Your task to perform on an android device: What's the news in Venezuela? Image 0: 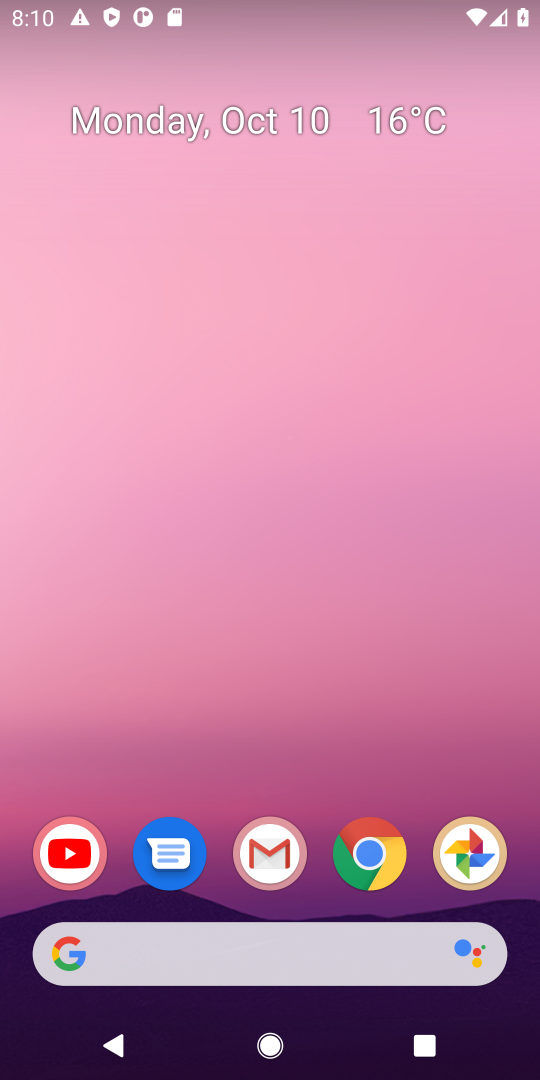
Step 0: drag from (316, 914) to (207, 156)
Your task to perform on an android device: What's the news in Venezuela? Image 1: 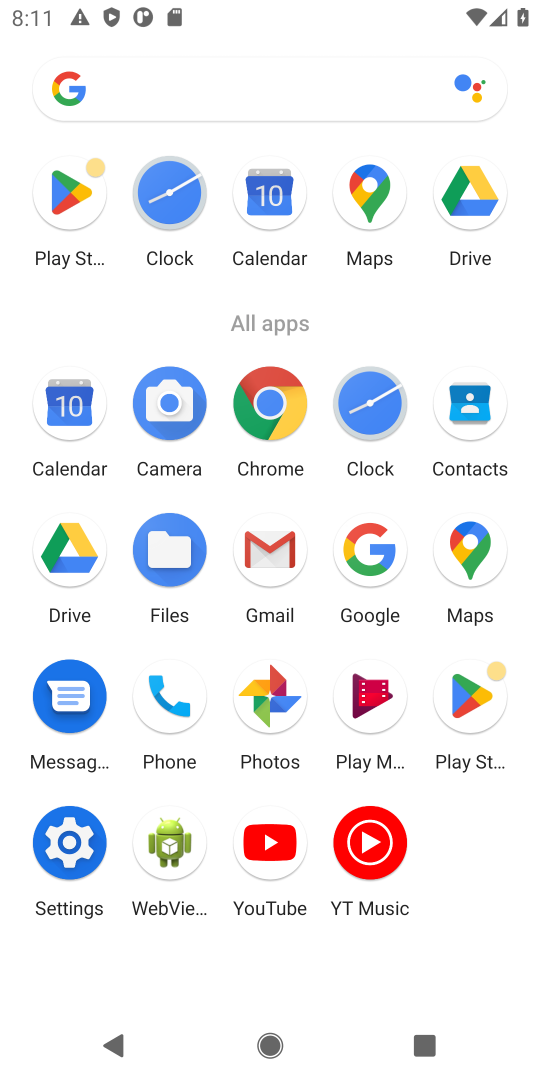
Step 1: click (268, 406)
Your task to perform on an android device: What's the news in Venezuela? Image 2: 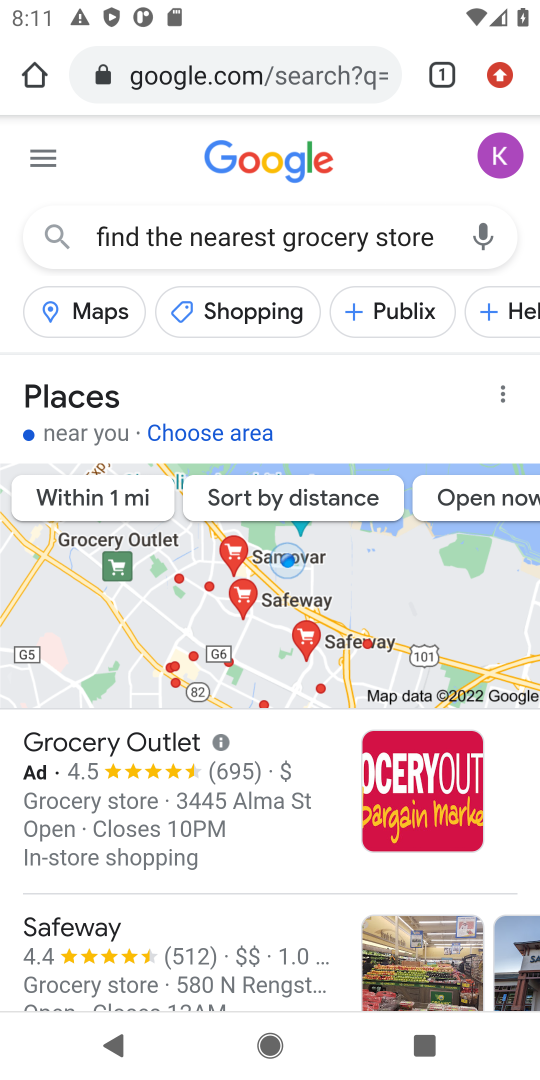
Step 2: click (350, 237)
Your task to perform on an android device: What's the news in Venezuela? Image 3: 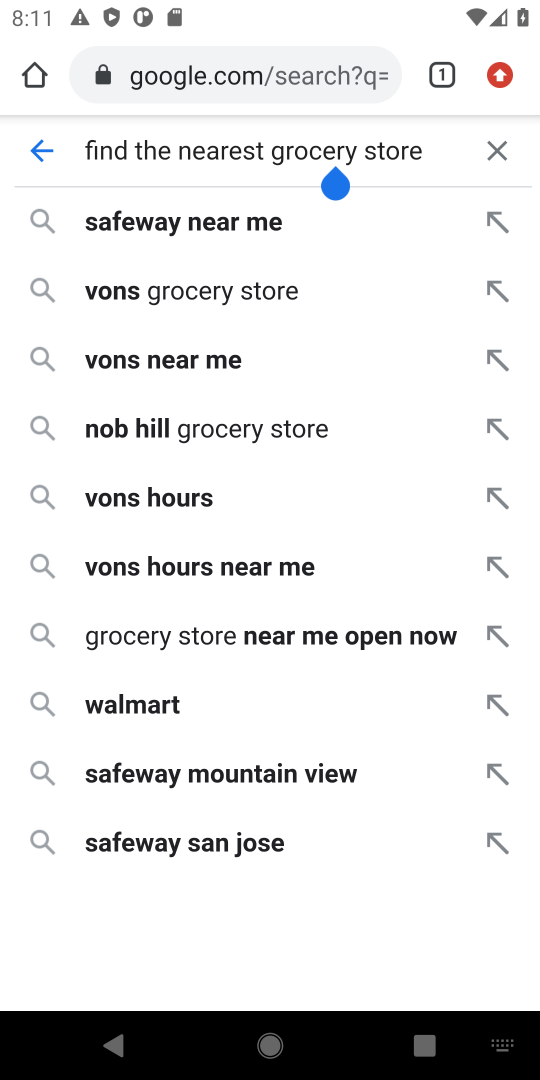
Step 3: click (501, 147)
Your task to perform on an android device: What's the news in Venezuela? Image 4: 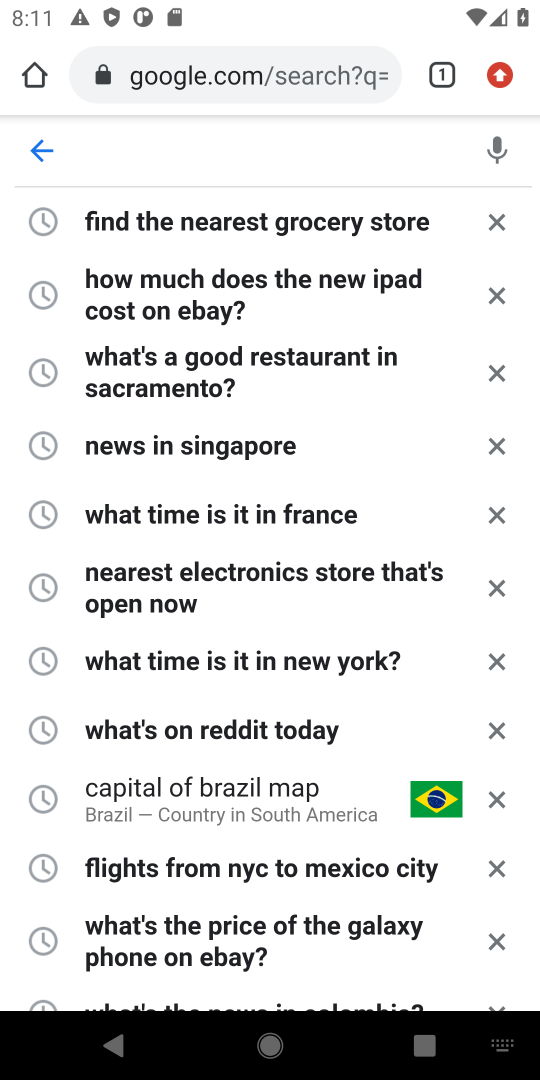
Step 4: type "What's the news in Venezuela?"
Your task to perform on an android device: What's the news in Venezuela? Image 5: 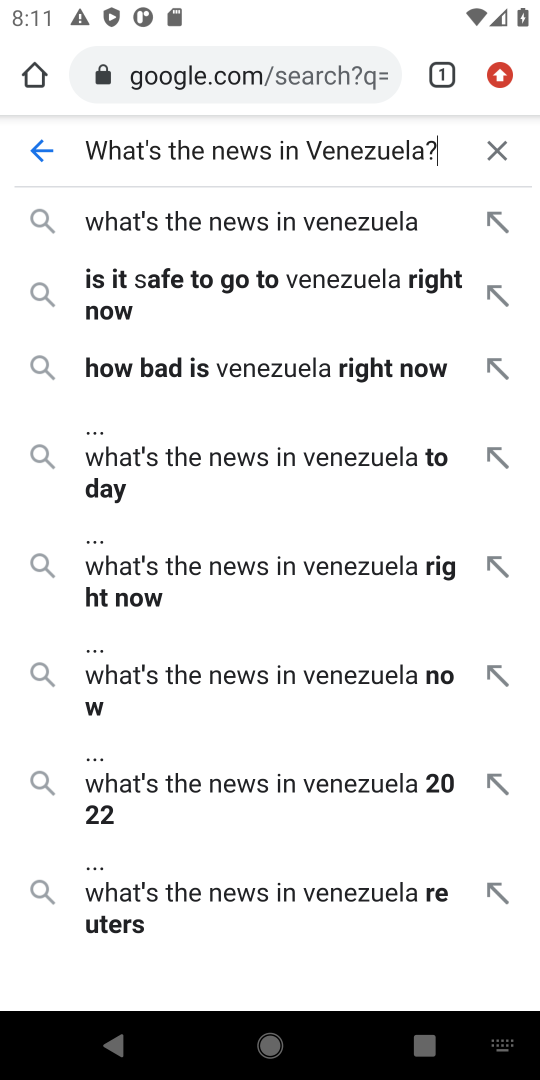
Step 5: type ""
Your task to perform on an android device: What's the news in Venezuela? Image 6: 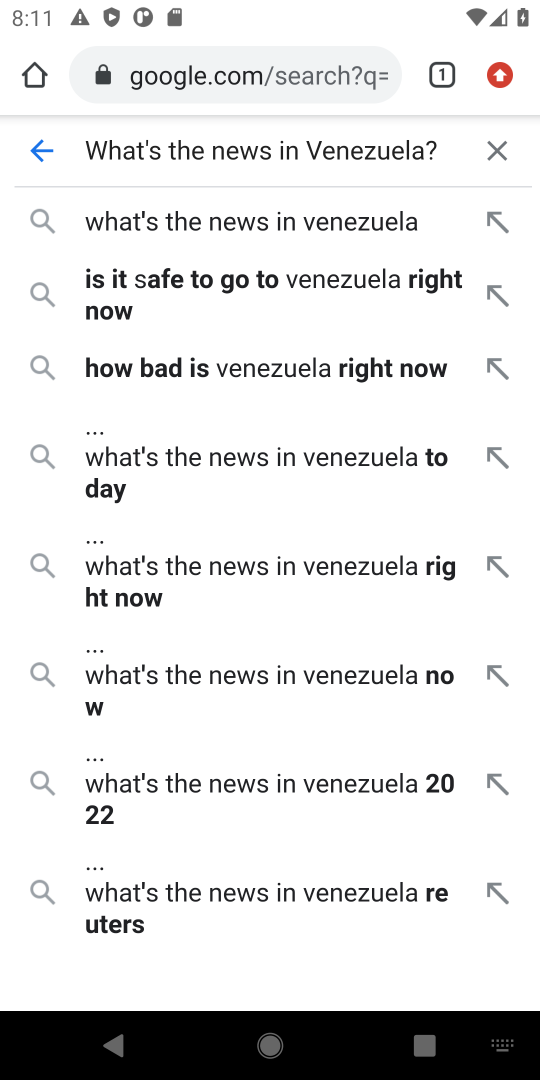
Step 6: click (329, 214)
Your task to perform on an android device: What's the news in Venezuela? Image 7: 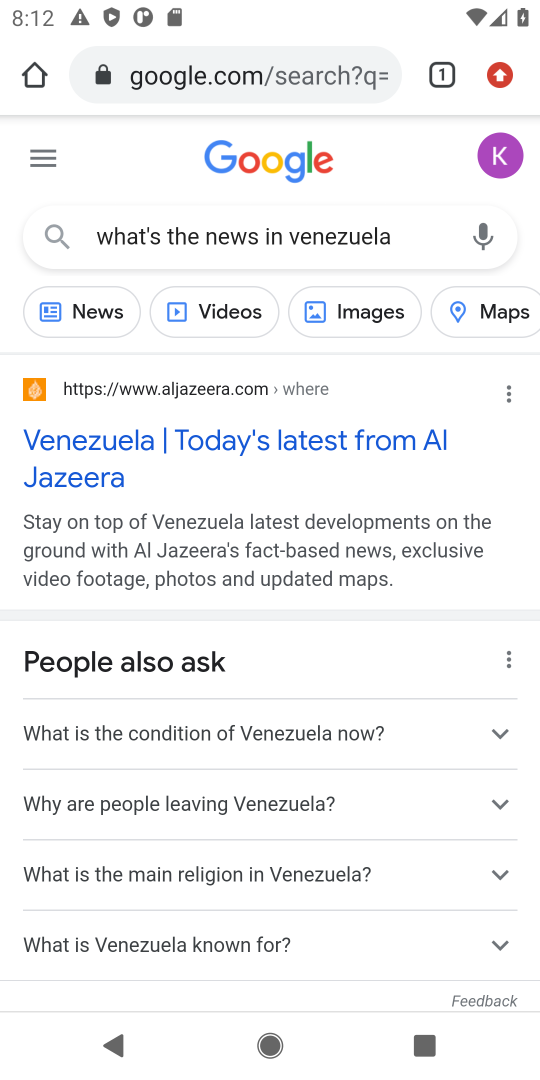
Step 7: drag from (195, 820) to (190, 673)
Your task to perform on an android device: What's the news in Venezuela? Image 8: 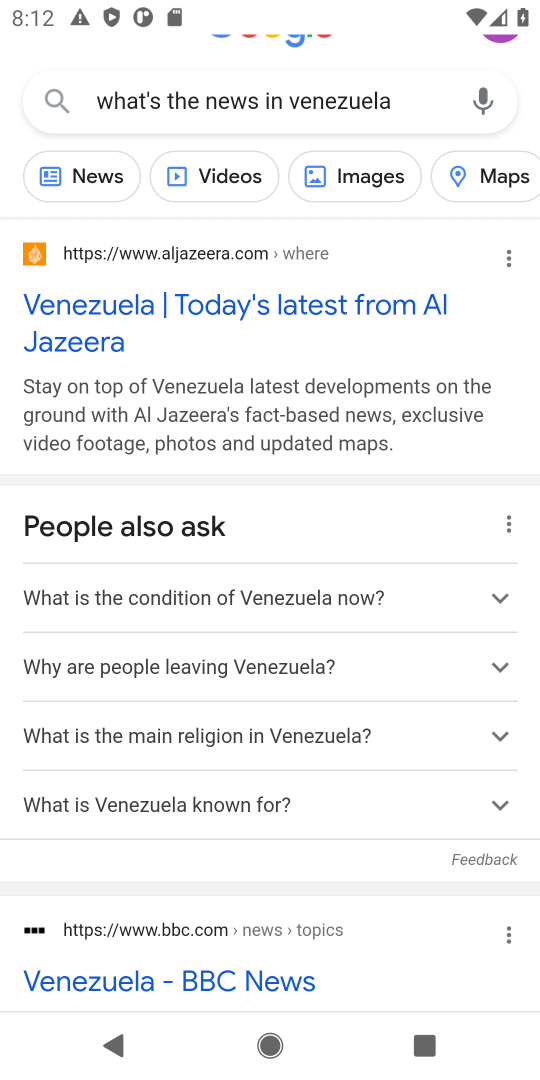
Step 8: click (85, 173)
Your task to perform on an android device: What's the news in Venezuela? Image 9: 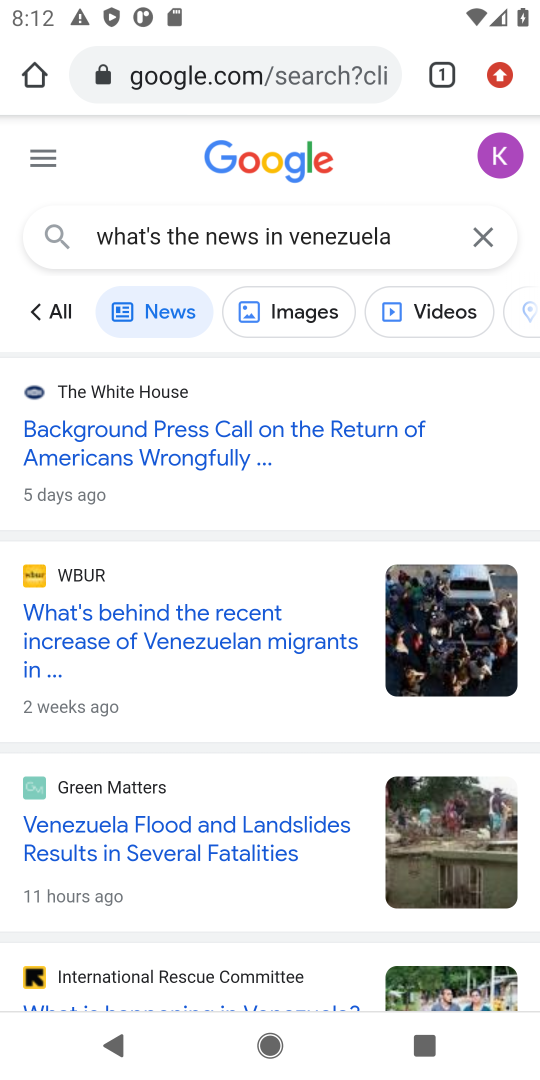
Step 9: task complete